Your task to perform on an android device: Open notification settings Image 0: 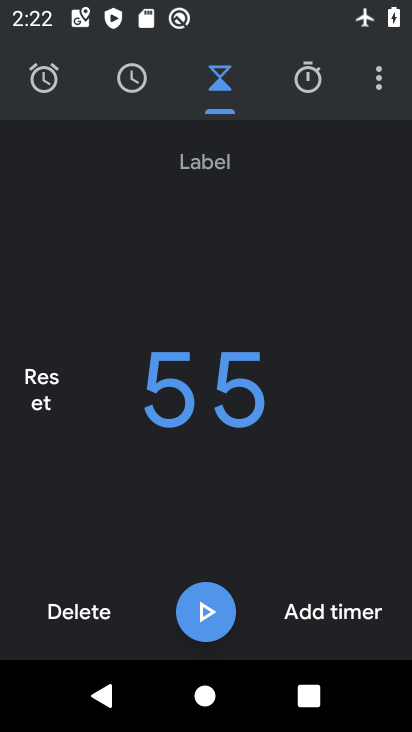
Step 0: press home button
Your task to perform on an android device: Open notification settings Image 1: 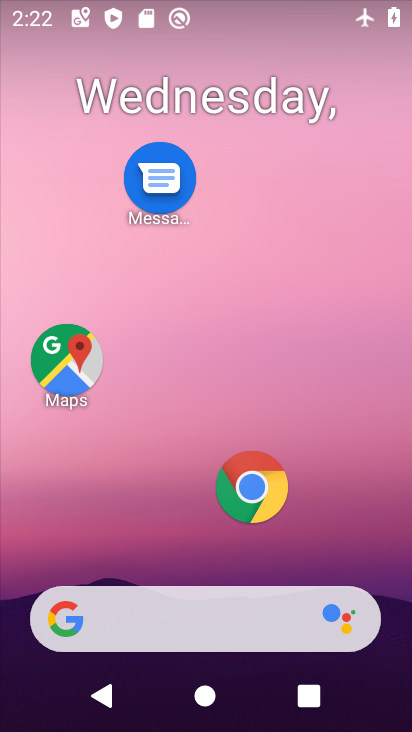
Step 1: drag from (192, 546) to (199, 138)
Your task to perform on an android device: Open notification settings Image 2: 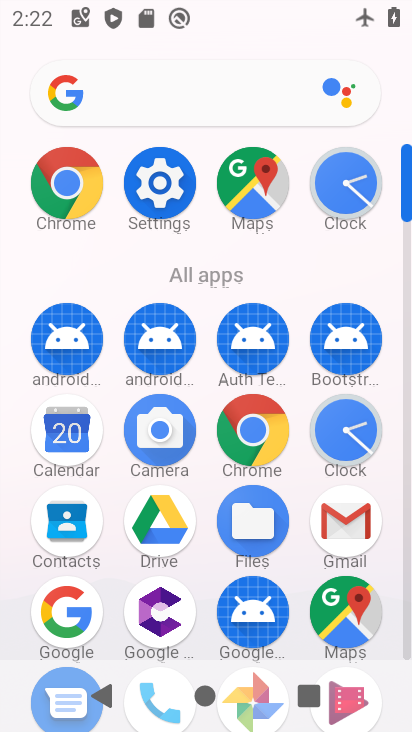
Step 2: click (165, 190)
Your task to perform on an android device: Open notification settings Image 3: 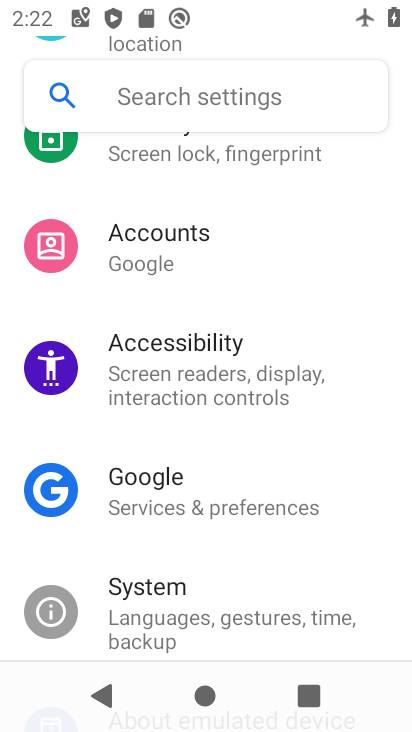
Step 3: drag from (222, 247) to (254, 519)
Your task to perform on an android device: Open notification settings Image 4: 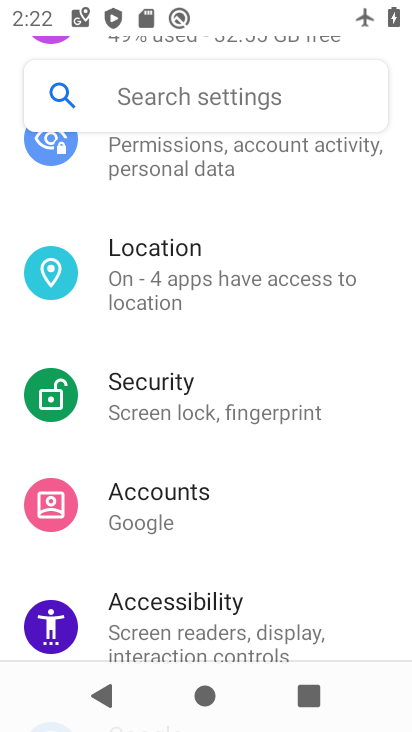
Step 4: drag from (229, 256) to (211, 496)
Your task to perform on an android device: Open notification settings Image 5: 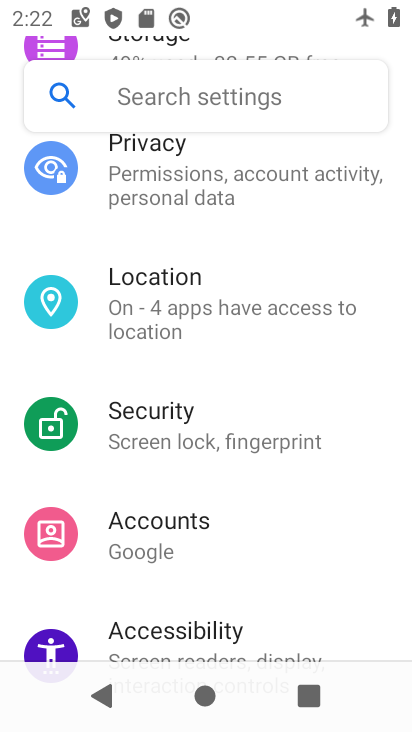
Step 5: drag from (204, 175) to (225, 486)
Your task to perform on an android device: Open notification settings Image 6: 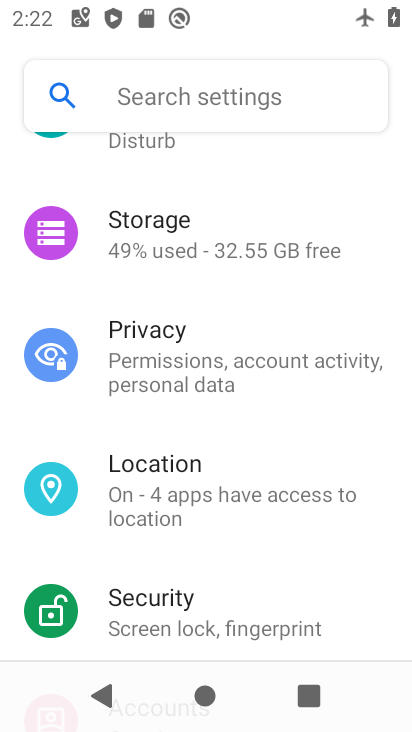
Step 6: drag from (187, 205) to (226, 402)
Your task to perform on an android device: Open notification settings Image 7: 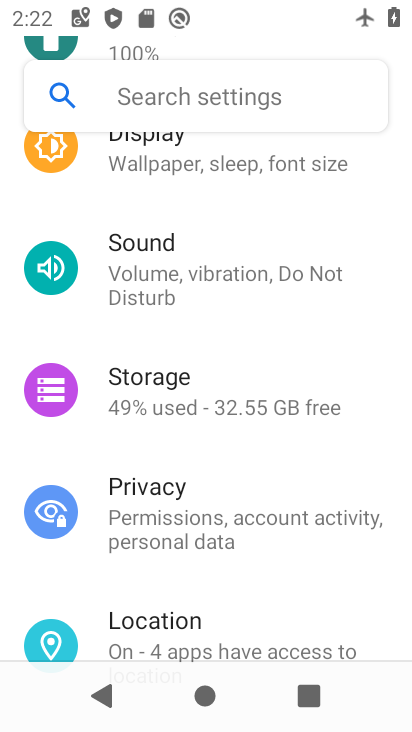
Step 7: drag from (210, 257) to (253, 522)
Your task to perform on an android device: Open notification settings Image 8: 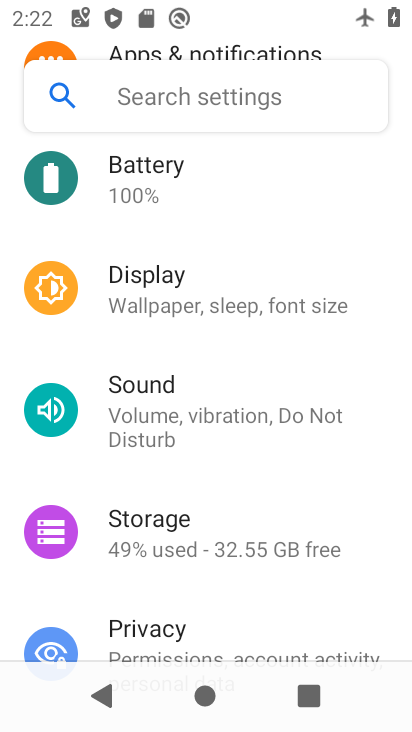
Step 8: drag from (235, 241) to (269, 487)
Your task to perform on an android device: Open notification settings Image 9: 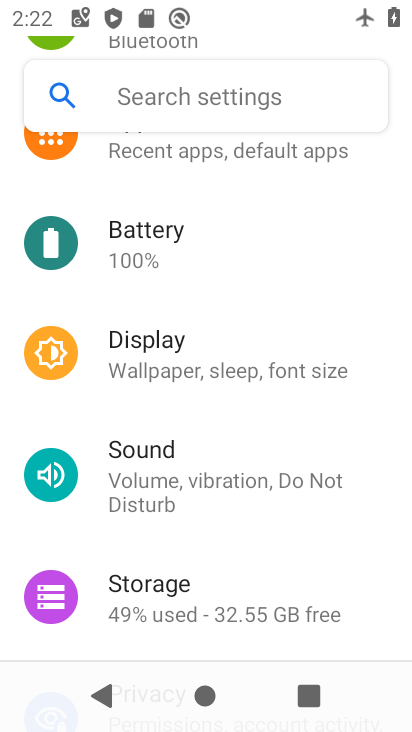
Step 9: drag from (229, 210) to (273, 437)
Your task to perform on an android device: Open notification settings Image 10: 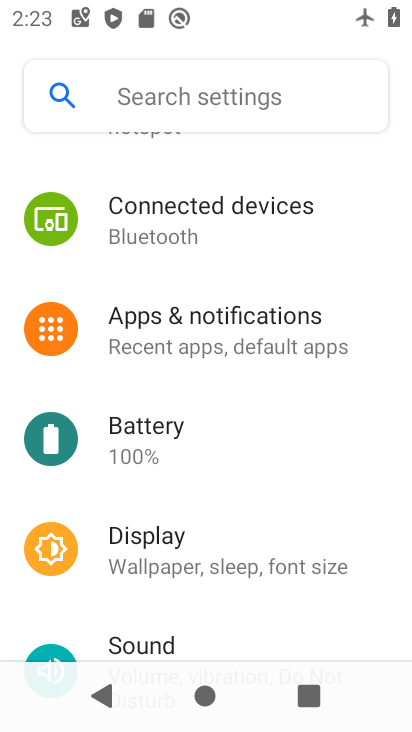
Step 10: click (229, 344)
Your task to perform on an android device: Open notification settings Image 11: 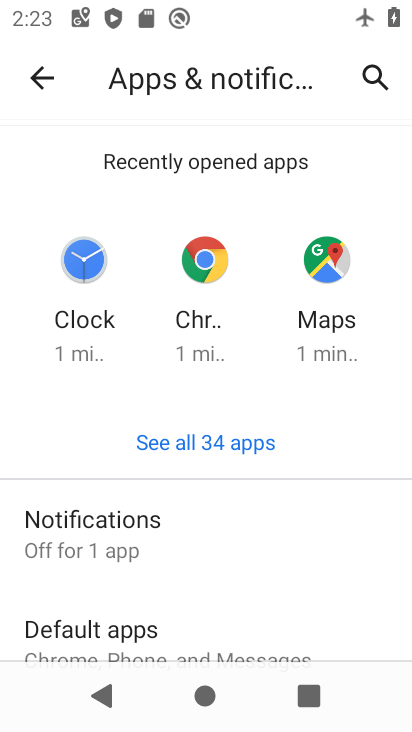
Step 11: click (162, 546)
Your task to perform on an android device: Open notification settings Image 12: 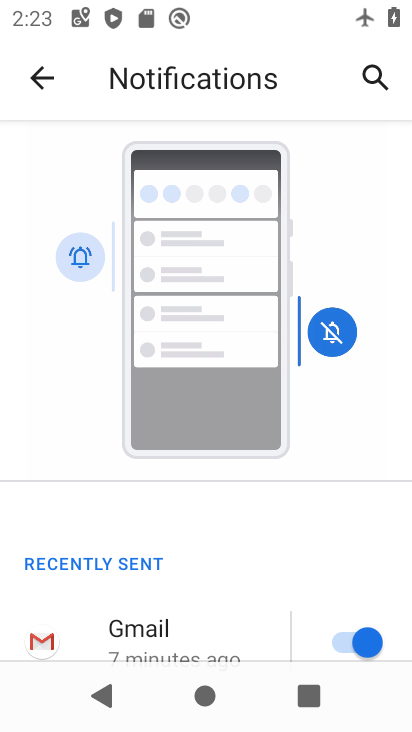
Step 12: task complete